Your task to perform on an android device: change alarm snooze length Image 0: 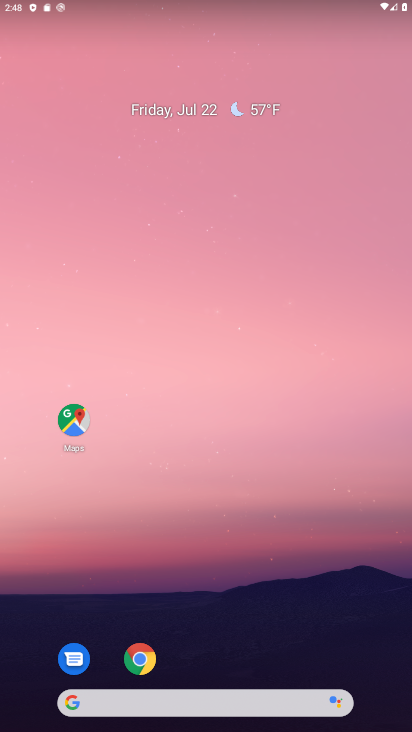
Step 0: drag from (263, 416) to (263, 205)
Your task to perform on an android device: change alarm snooze length Image 1: 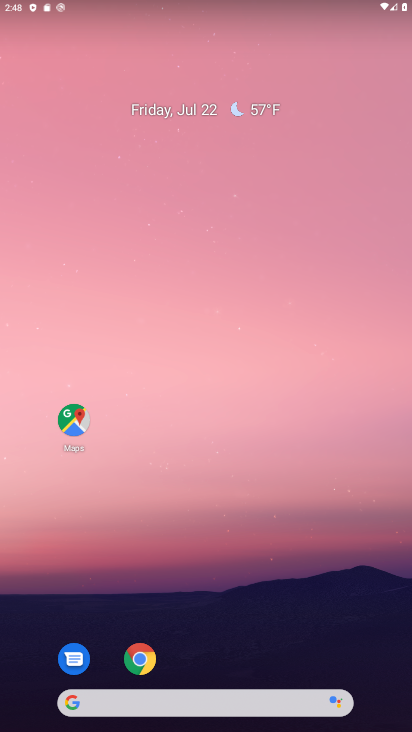
Step 1: drag from (199, 399) to (162, 105)
Your task to perform on an android device: change alarm snooze length Image 2: 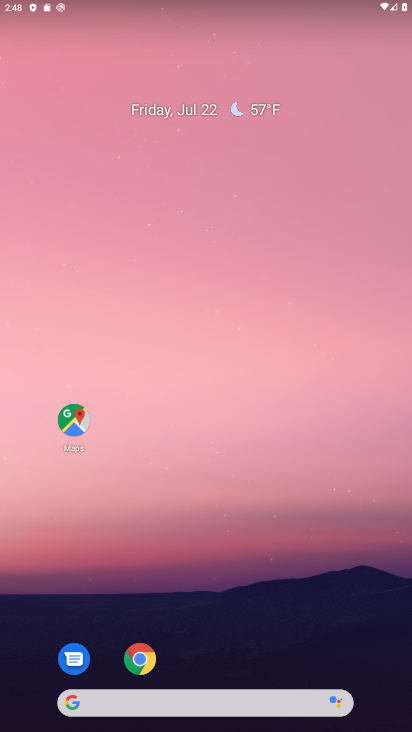
Step 2: drag from (192, 184) to (182, 143)
Your task to perform on an android device: change alarm snooze length Image 3: 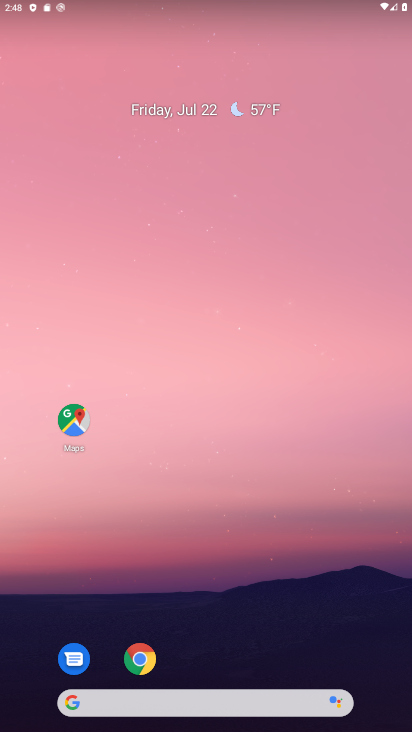
Step 3: drag from (205, 317) to (200, 211)
Your task to perform on an android device: change alarm snooze length Image 4: 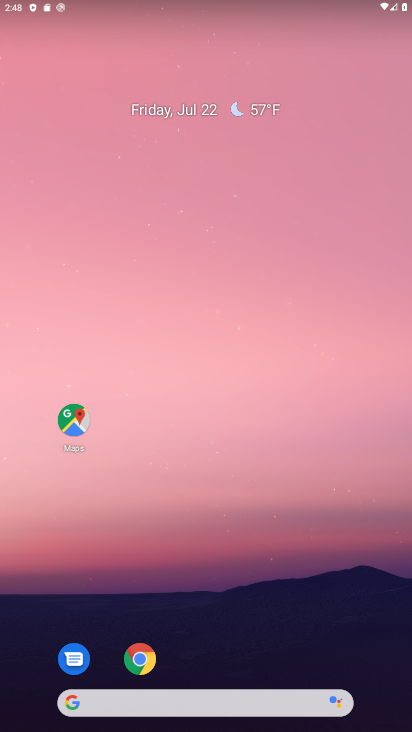
Step 4: drag from (212, 343) to (206, 178)
Your task to perform on an android device: change alarm snooze length Image 5: 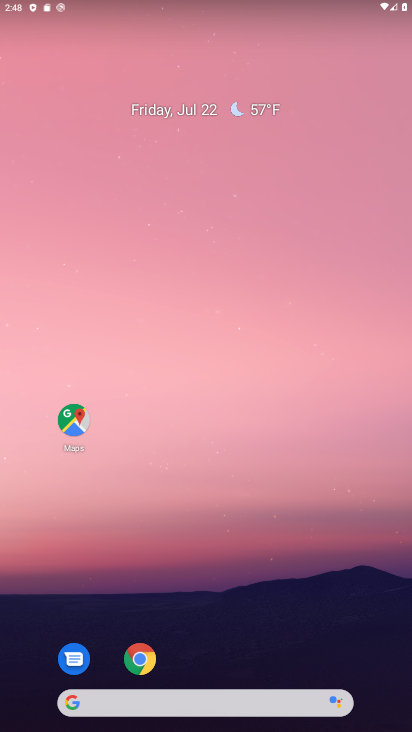
Step 5: drag from (256, 411) to (255, 125)
Your task to perform on an android device: change alarm snooze length Image 6: 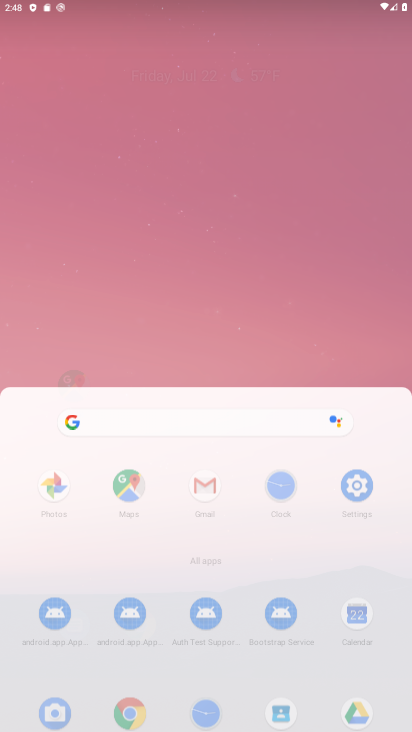
Step 6: drag from (227, 523) to (169, 51)
Your task to perform on an android device: change alarm snooze length Image 7: 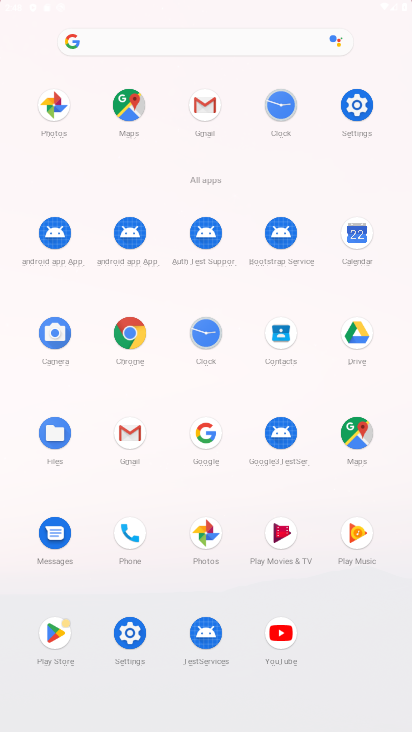
Step 7: click (242, 372)
Your task to perform on an android device: change alarm snooze length Image 8: 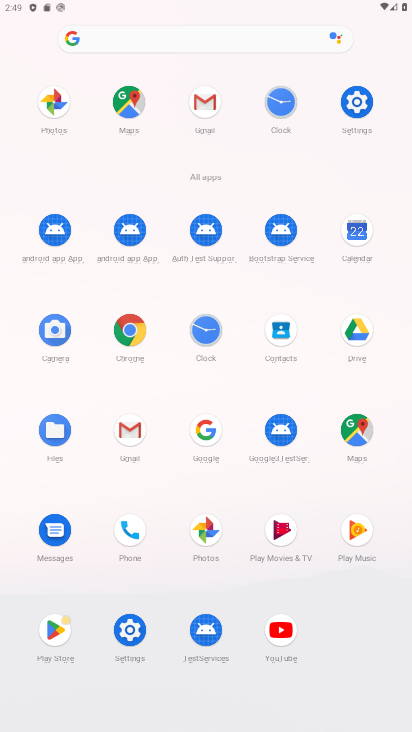
Step 8: click (194, 333)
Your task to perform on an android device: change alarm snooze length Image 9: 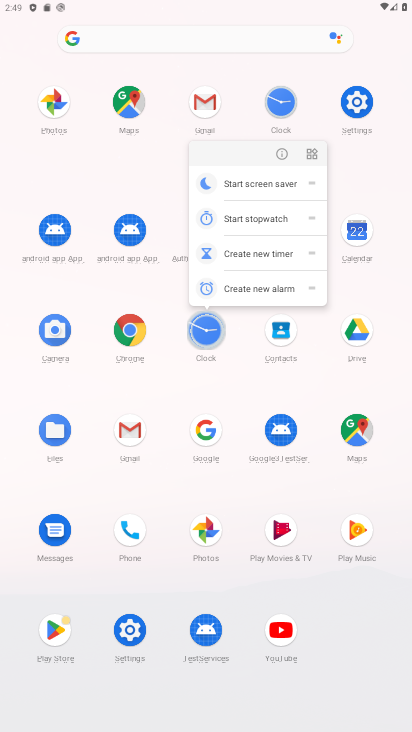
Step 9: click (200, 335)
Your task to perform on an android device: change alarm snooze length Image 10: 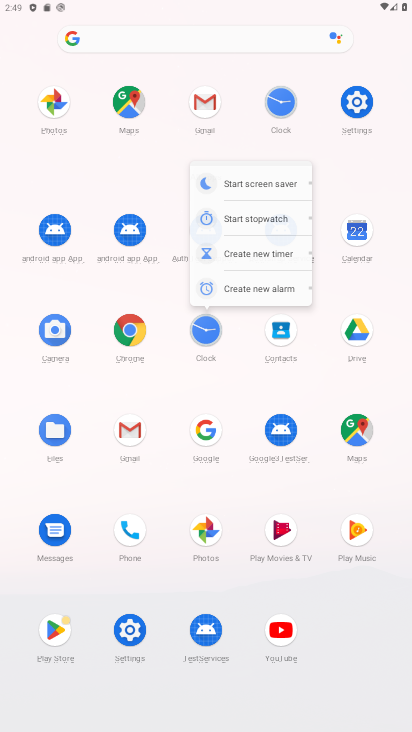
Step 10: click (200, 335)
Your task to perform on an android device: change alarm snooze length Image 11: 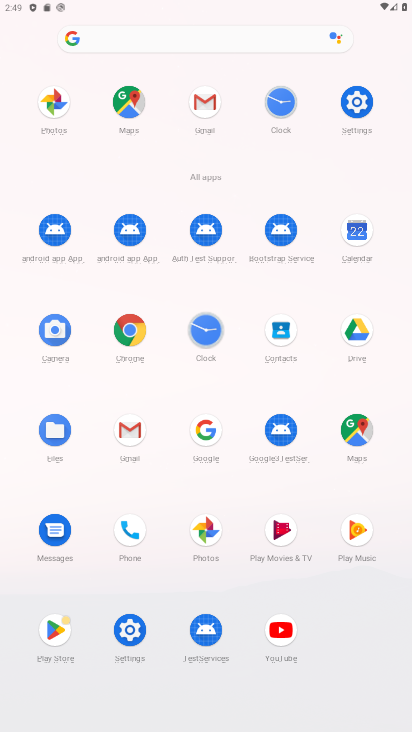
Step 11: click (200, 335)
Your task to perform on an android device: change alarm snooze length Image 12: 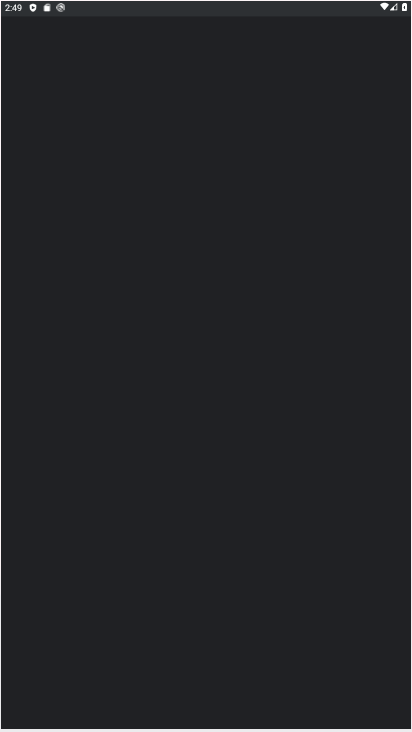
Step 12: click (201, 336)
Your task to perform on an android device: change alarm snooze length Image 13: 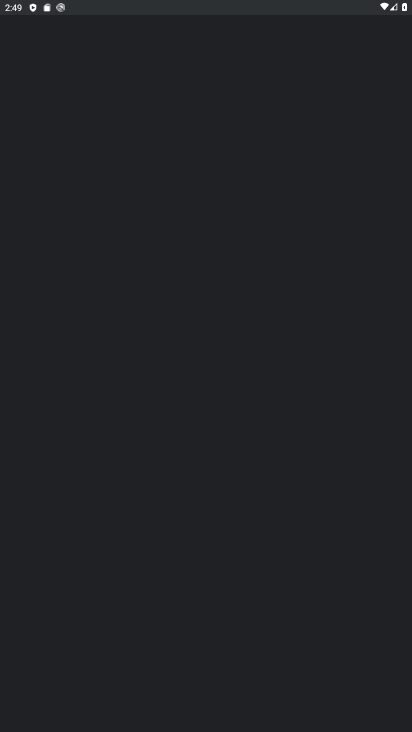
Step 13: click (201, 336)
Your task to perform on an android device: change alarm snooze length Image 14: 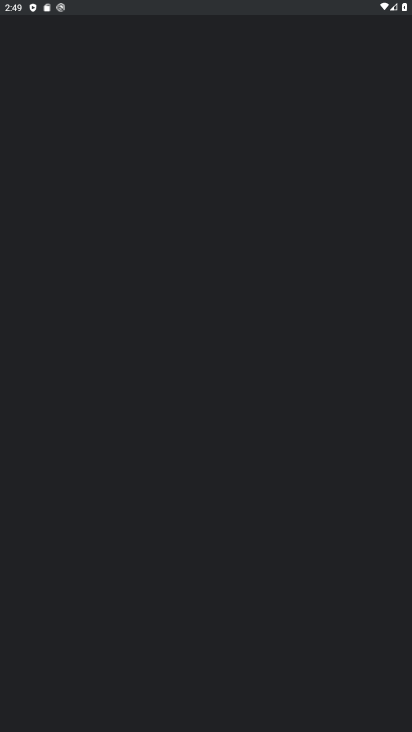
Step 14: click (202, 335)
Your task to perform on an android device: change alarm snooze length Image 15: 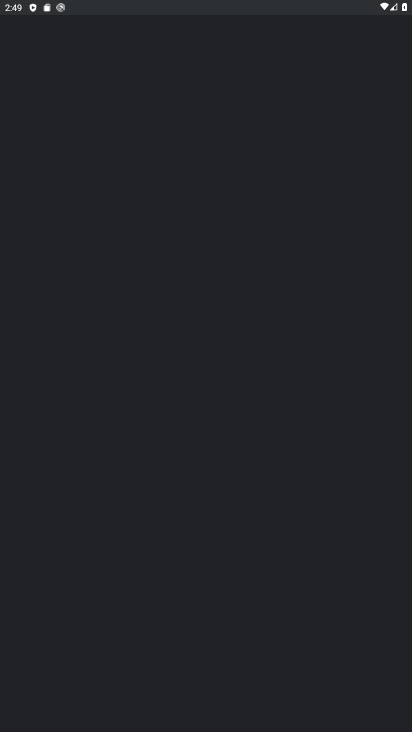
Step 15: click (204, 334)
Your task to perform on an android device: change alarm snooze length Image 16: 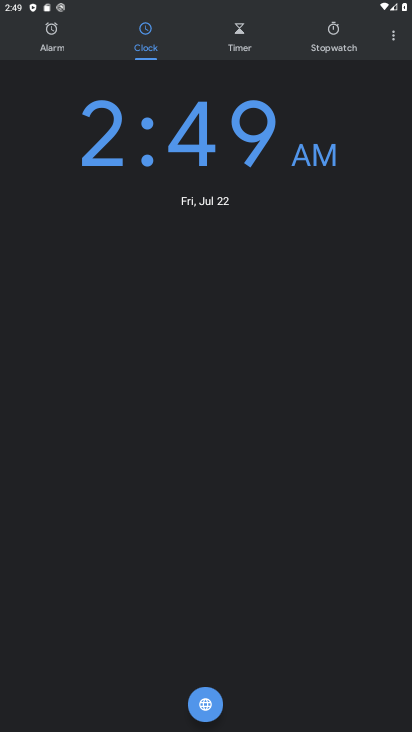
Step 16: click (391, 40)
Your task to perform on an android device: change alarm snooze length Image 17: 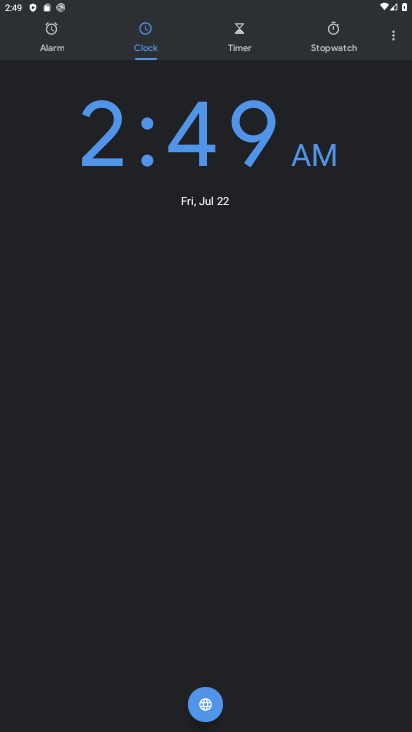
Step 17: click (392, 40)
Your task to perform on an android device: change alarm snooze length Image 18: 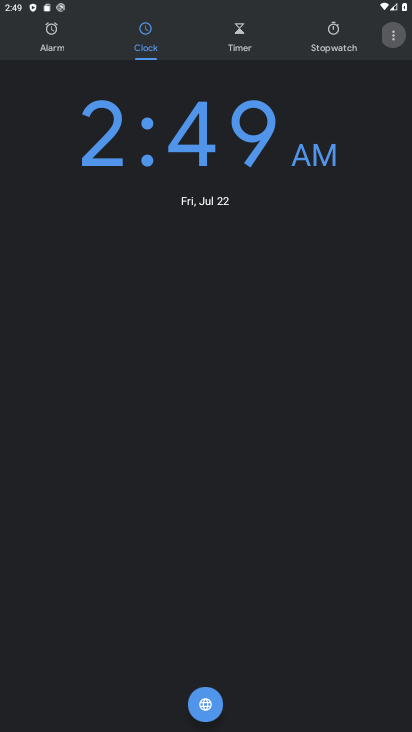
Step 18: click (392, 40)
Your task to perform on an android device: change alarm snooze length Image 19: 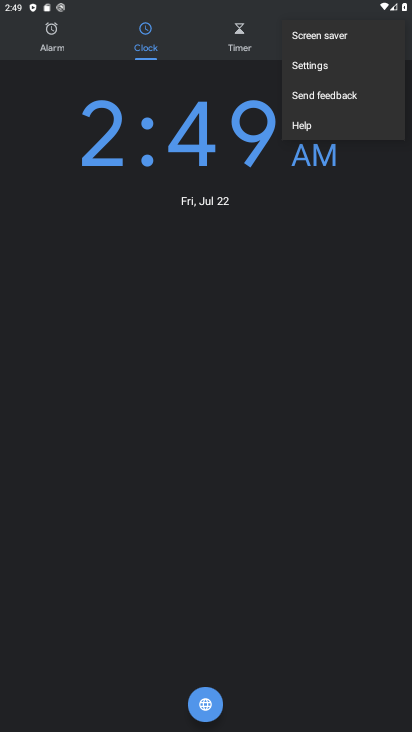
Step 19: click (317, 69)
Your task to perform on an android device: change alarm snooze length Image 20: 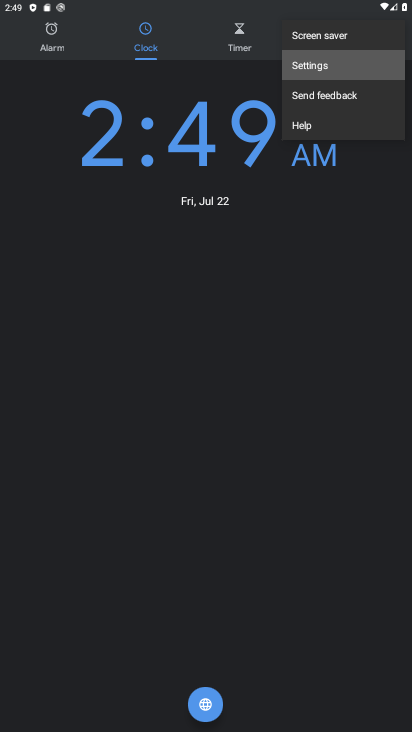
Step 20: click (317, 69)
Your task to perform on an android device: change alarm snooze length Image 21: 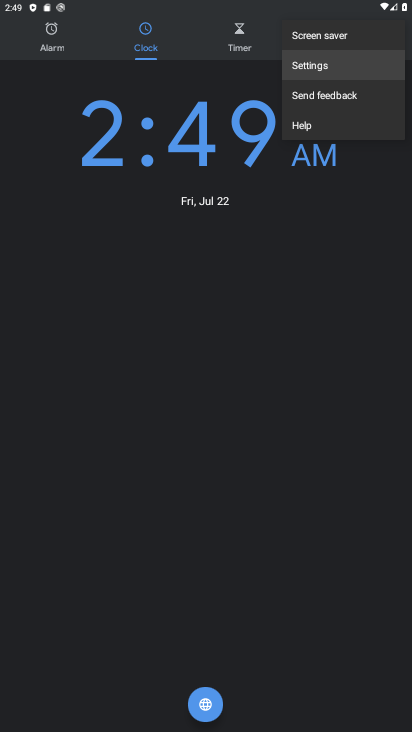
Step 21: click (316, 68)
Your task to perform on an android device: change alarm snooze length Image 22: 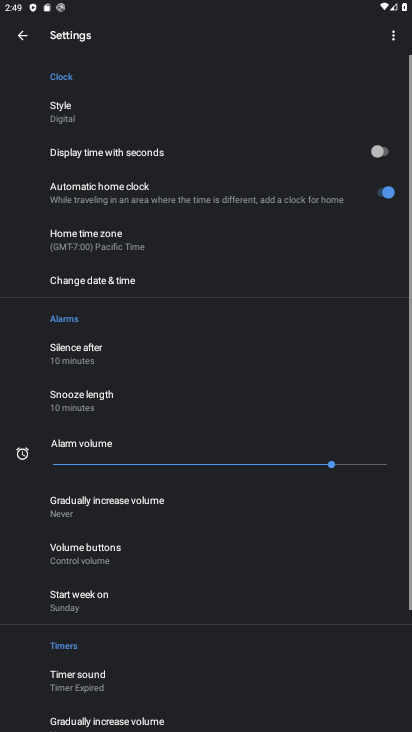
Step 22: click (316, 68)
Your task to perform on an android device: change alarm snooze length Image 23: 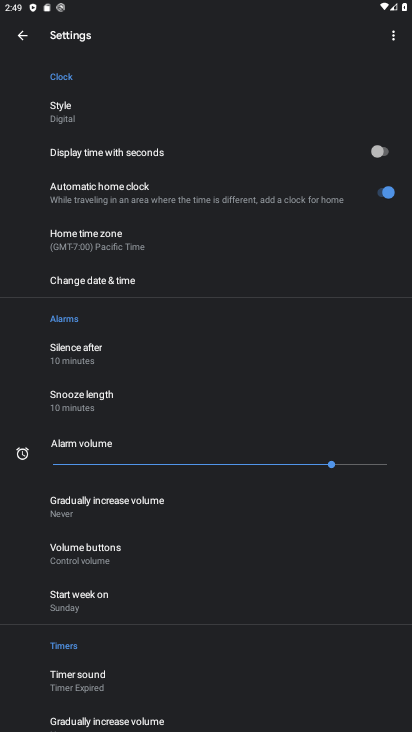
Step 23: click (71, 389)
Your task to perform on an android device: change alarm snooze length Image 24: 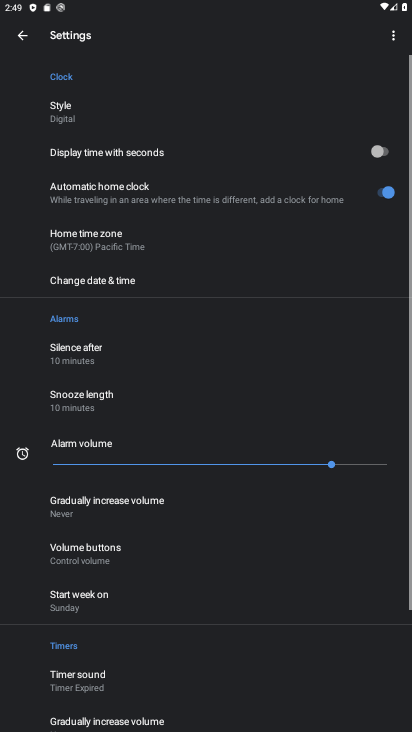
Step 24: click (87, 421)
Your task to perform on an android device: change alarm snooze length Image 25: 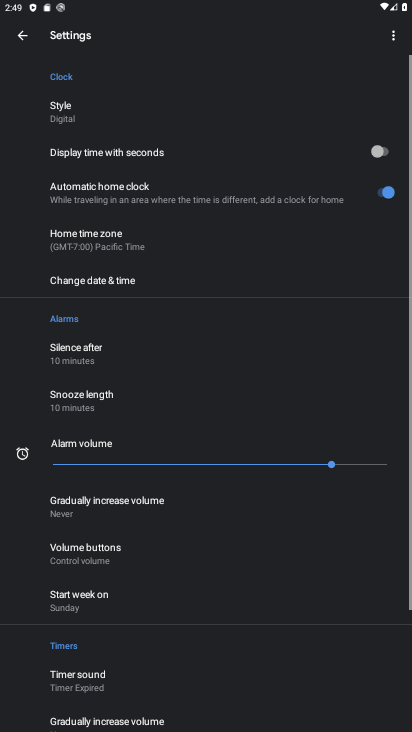
Step 25: click (87, 421)
Your task to perform on an android device: change alarm snooze length Image 26: 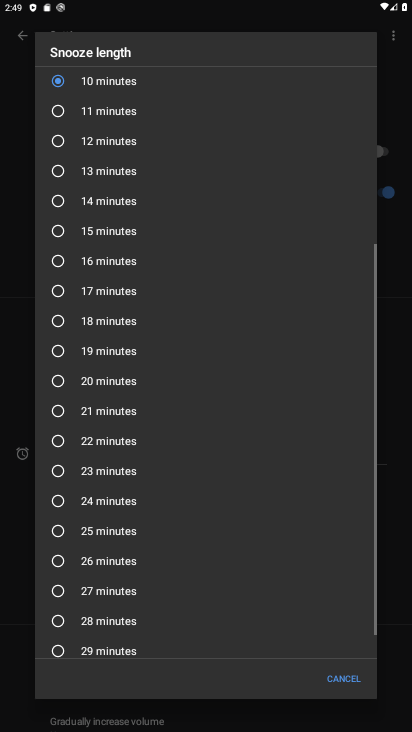
Step 26: click (56, 348)
Your task to perform on an android device: change alarm snooze length Image 27: 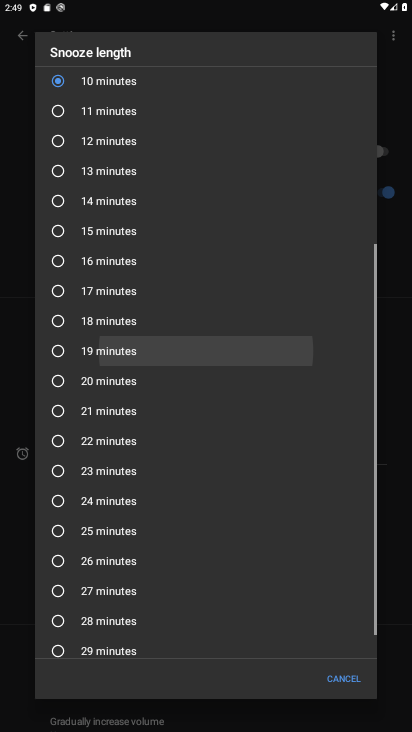
Step 27: click (58, 346)
Your task to perform on an android device: change alarm snooze length Image 28: 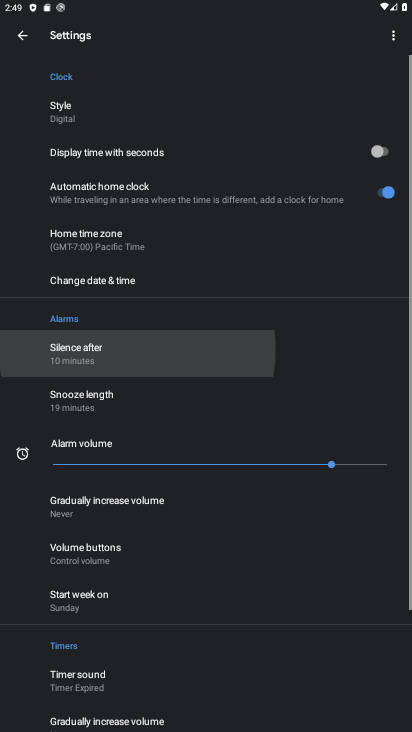
Step 28: click (74, 335)
Your task to perform on an android device: change alarm snooze length Image 29: 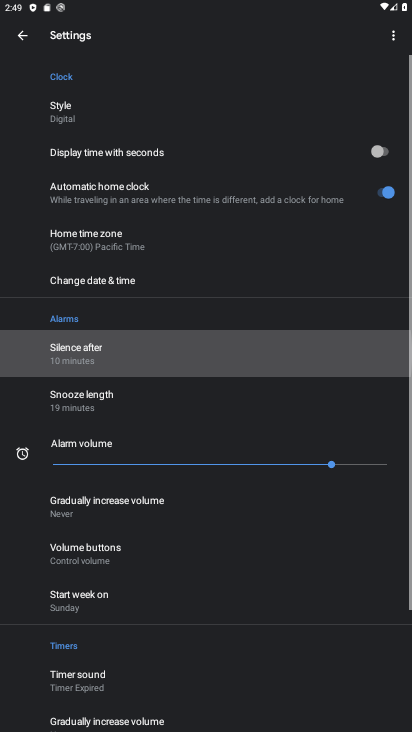
Step 29: click (83, 337)
Your task to perform on an android device: change alarm snooze length Image 30: 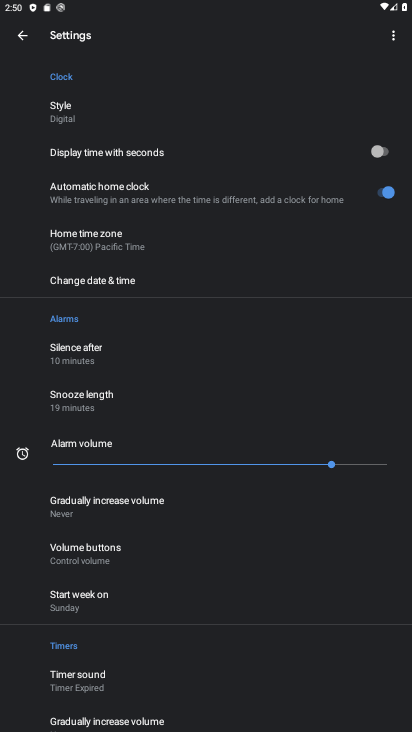
Step 30: task complete